Your task to perform on an android device: find which apps use the phone's location Image 0: 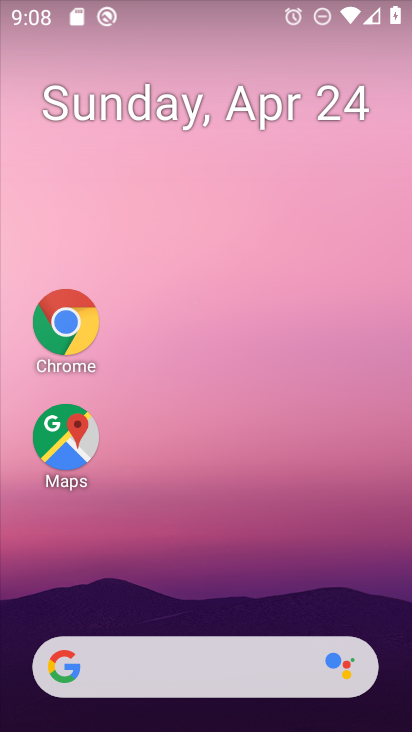
Step 0: drag from (221, 606) to (160, 10)
Your task to perform on an android device: find which apps use the phone's location Image 1: 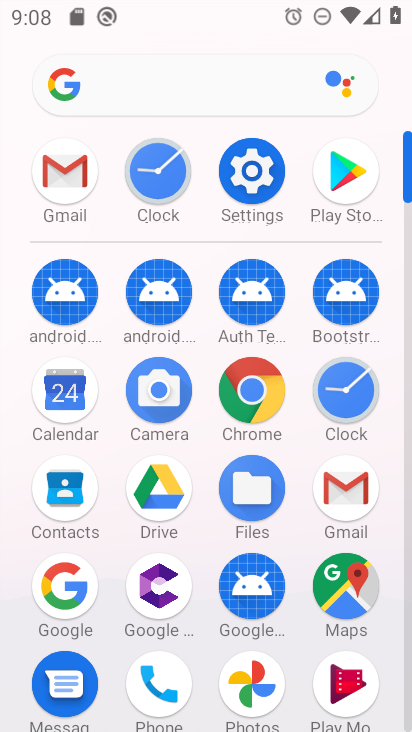
Step 1: click (252, 177)
Your task to perform on an android device: find which apps use the phone's location Image 2: 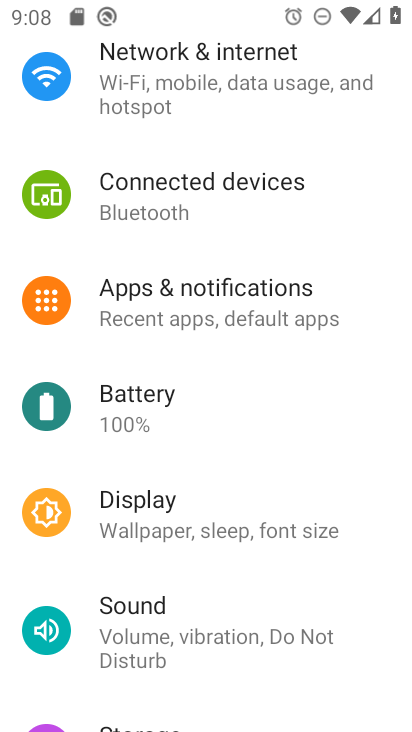
Step 2: drag from (223, 499) to (114, 9)
Your task to perform on an android device: find which apps use the phone's location Image 3: 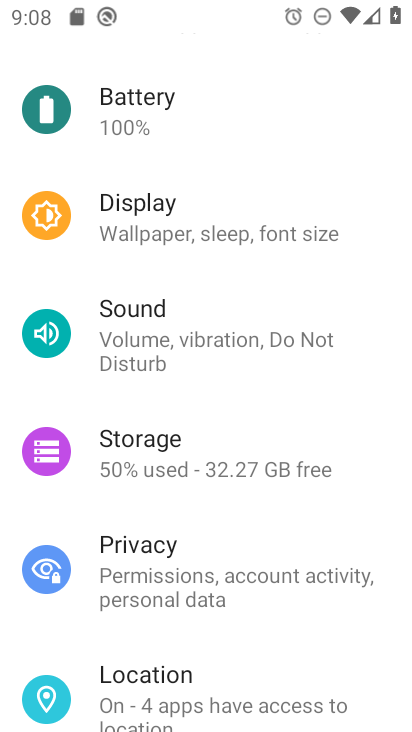
Step 3: click (147, 673)
Your task to perform on an android device: find which apps use the phone's location Image 4: 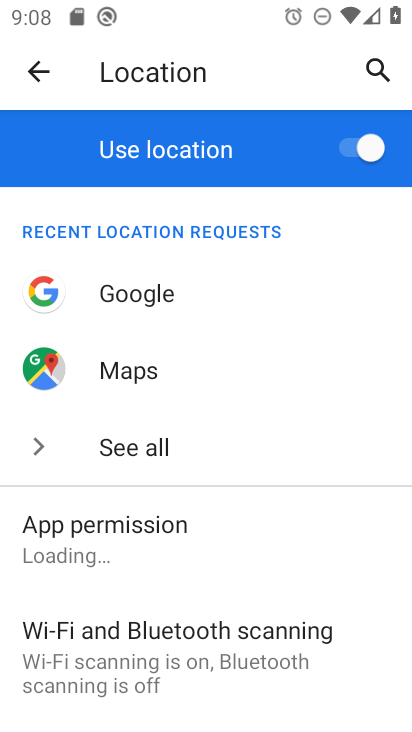
Step 4: click (73, 444)
Your task to perform on an android device: find which apps use the phone's location Image 5: 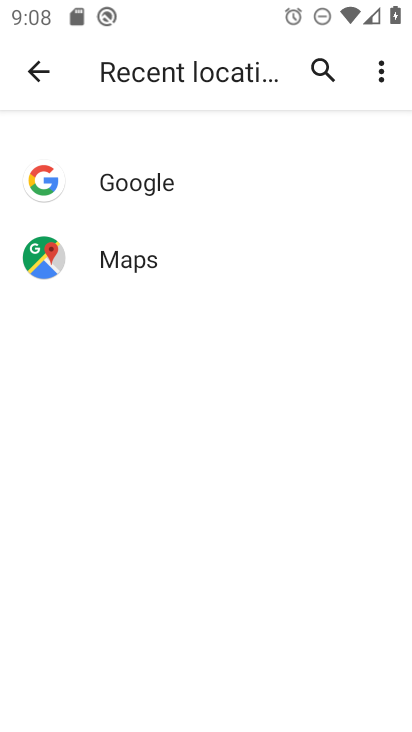
Step 5: task complete